Your task to perform on an android device: Find coffee shops on Maps Image 0: 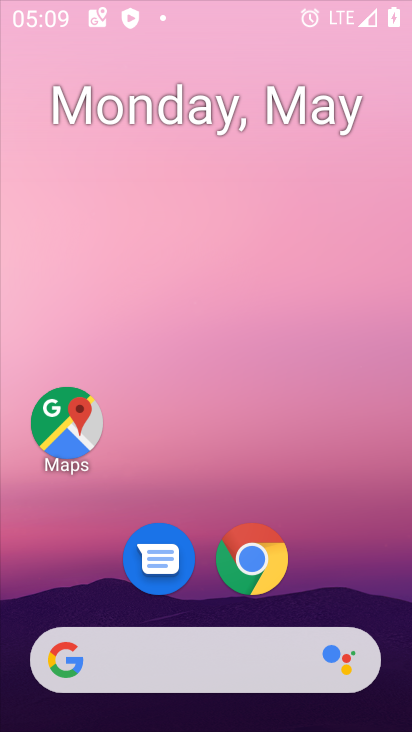
Step 0: drag from (294, 599) to (303, 7)
Your task to perform on an android device: Find coffee shops on Maps Image 1: 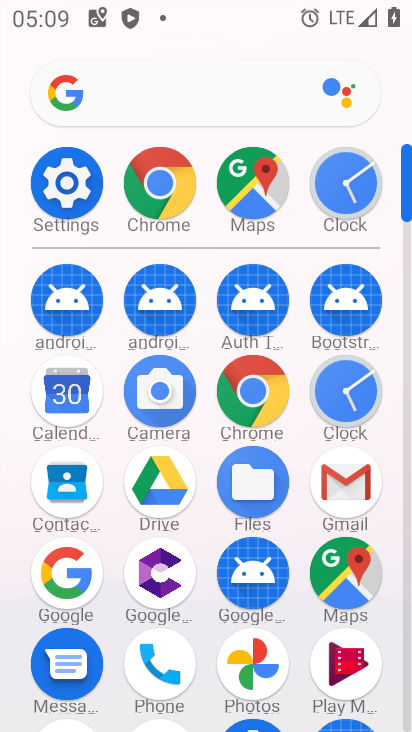
Step 1: click (183, 185)
Your task to perform on an android device: Find coffee shops on Maps Image 2: 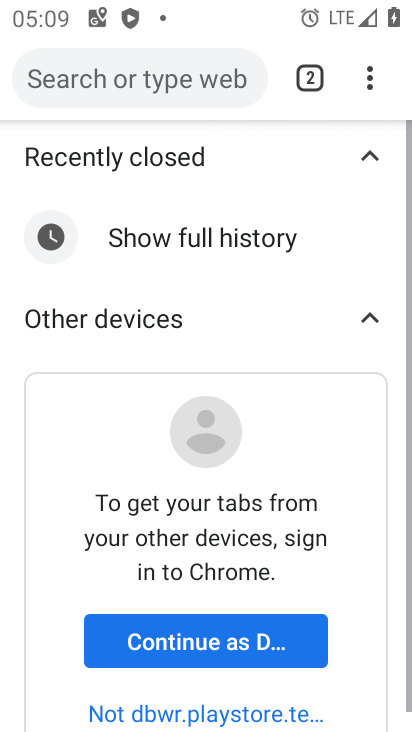
Step 2: click (232, 68)
Your task to perform on an android device: Find coffee shops on Maps Image 3: 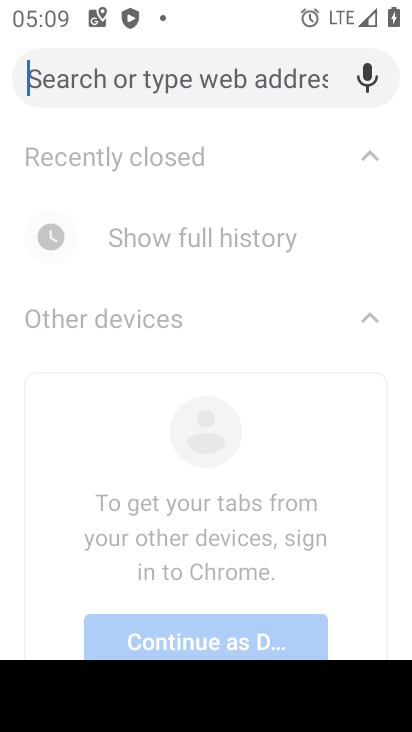
Step 3: type "coffee shops"
Your task to perform on an android device: Find coffee shops on Maps Image 4: 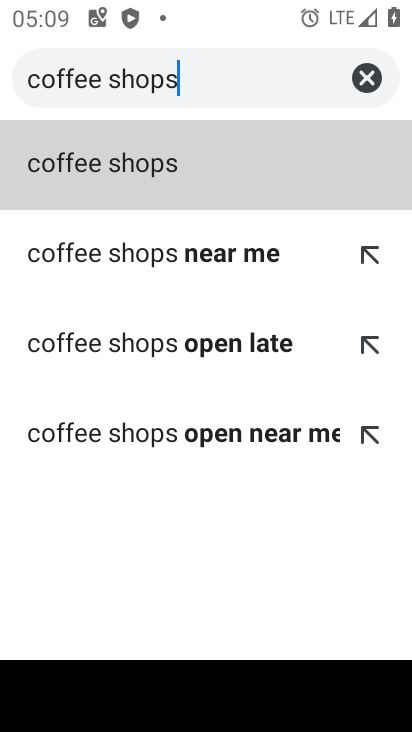
Step 4: click (329, 185)
Your task to perform on an android device: Find coffee shops on Maps Image 5: 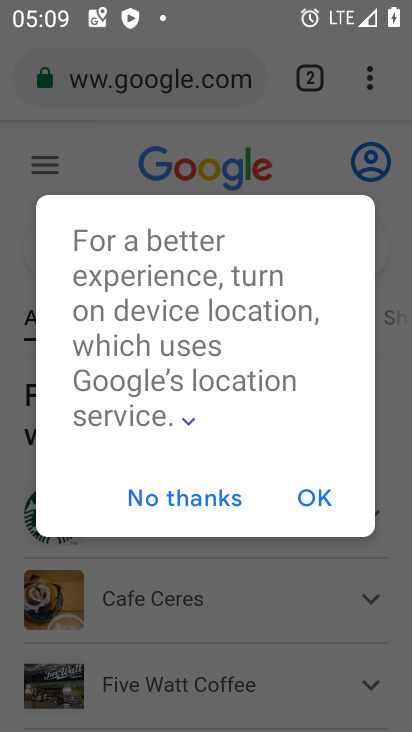
Step 5: task complete